Your task to perform on an android device: change text size in settings app Image 0: 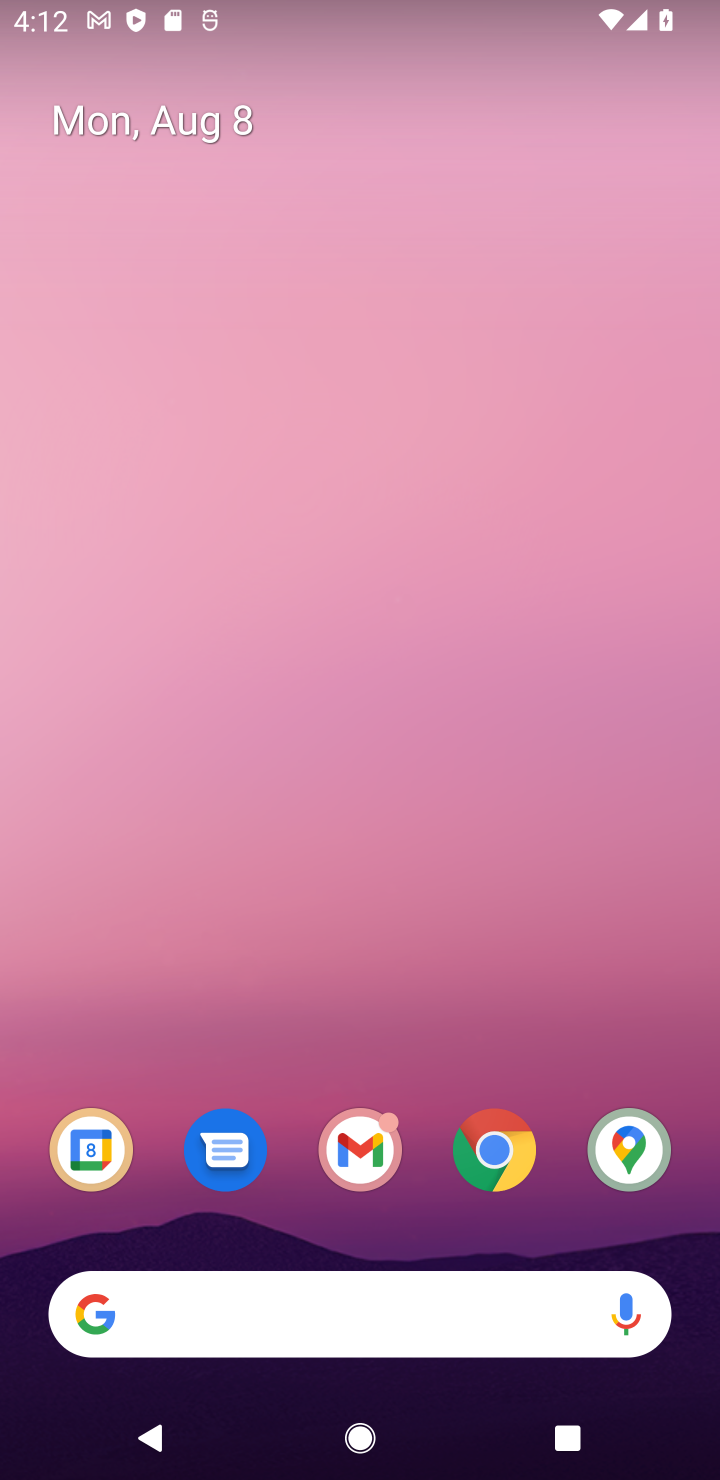
Step 0: drag from (371, 1251) to (450, 146)
Your task to perform on an android device: change text size in settings app Image 1: 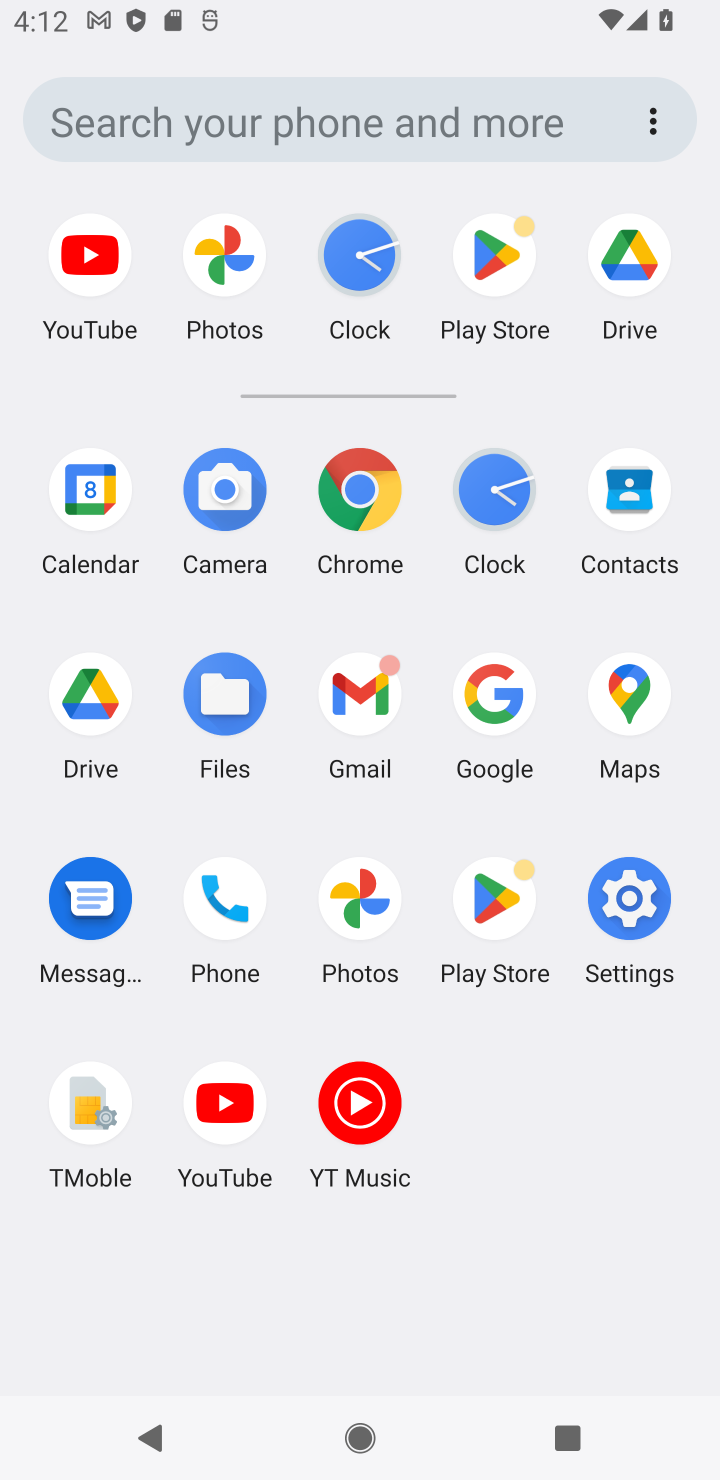
Step 1: click (646, 1004)
Your task to perform on an android device: change text size in settings app Image 2: 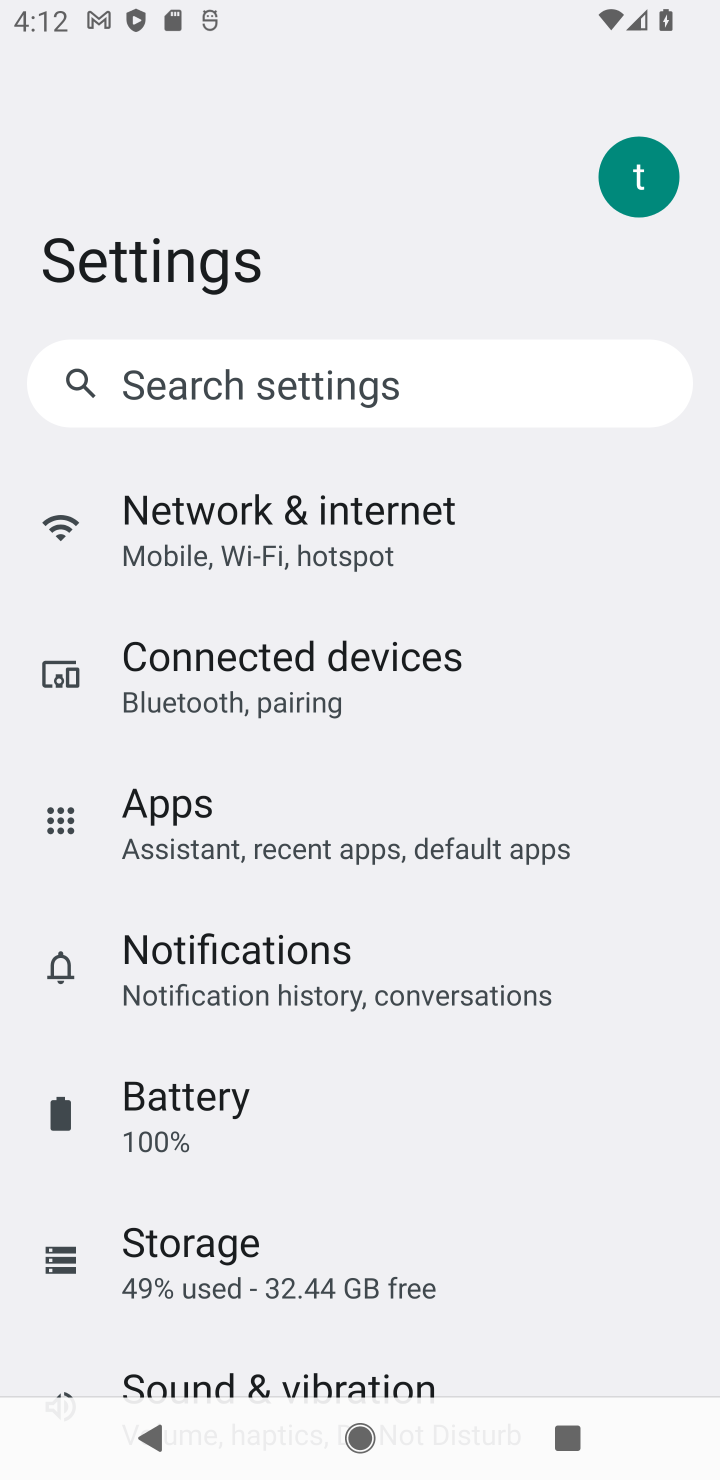
Step 2: task complete